Your task to perform on an android device: Turn on the flashlight Image 0: 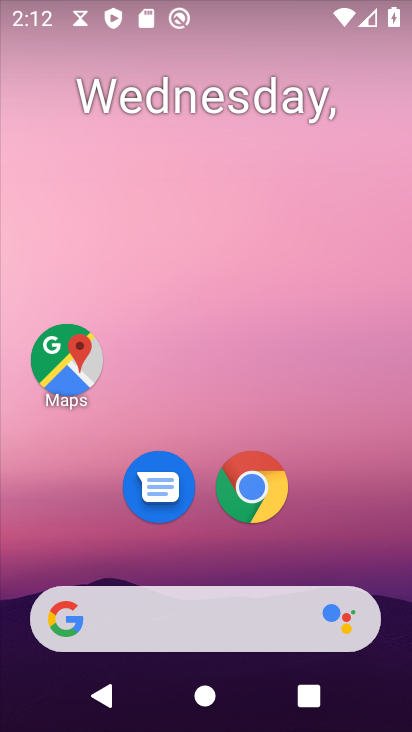
Step 0: drag from (319, 554) to (269, 297)
Your task to perform on an android device: Turn on the flashlight Image 1: 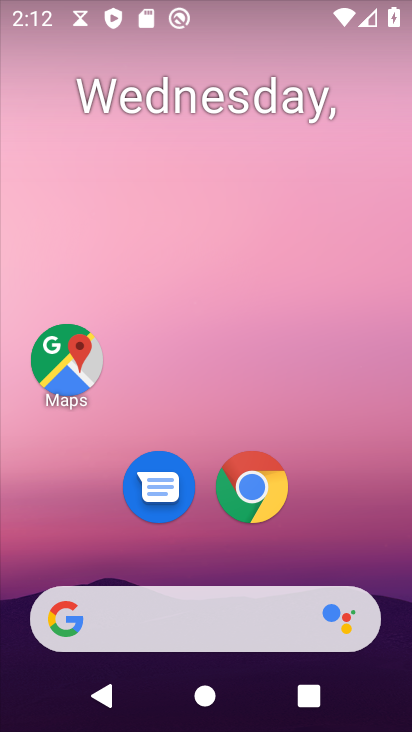
Step 1: drag from (213, 613) to (223, 146)
Your task to perform on an android device: Turn on the flashlight Image 2: 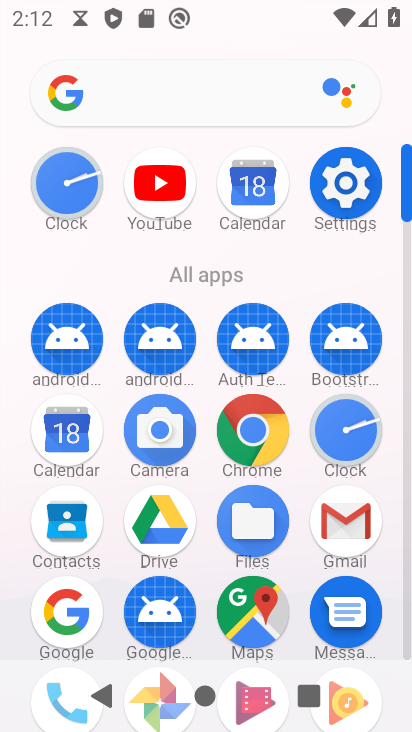
Step 2: drag from (213, 455) to (181, 179)
Your task to perform on an android device: Turn on the flashlight Image 3: 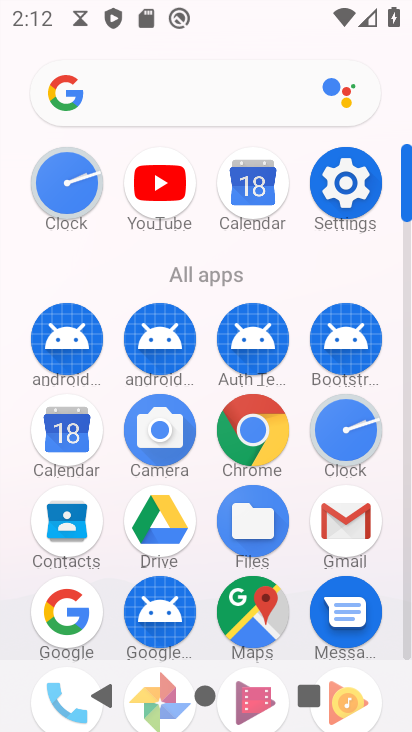
Step 3: drag from (205, 233) to (292, 262)
Your task to perform on an android device: Turn on the flashlight Image 4: 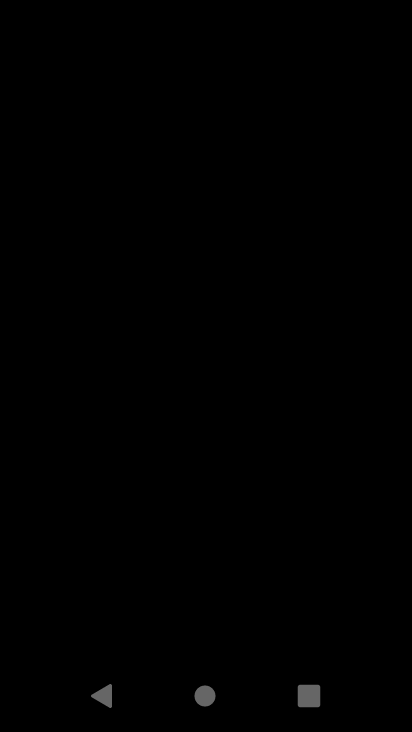
Step 4: click (164, 331)
Your task to perform on an android device: Turn on the flashlight Image 5: 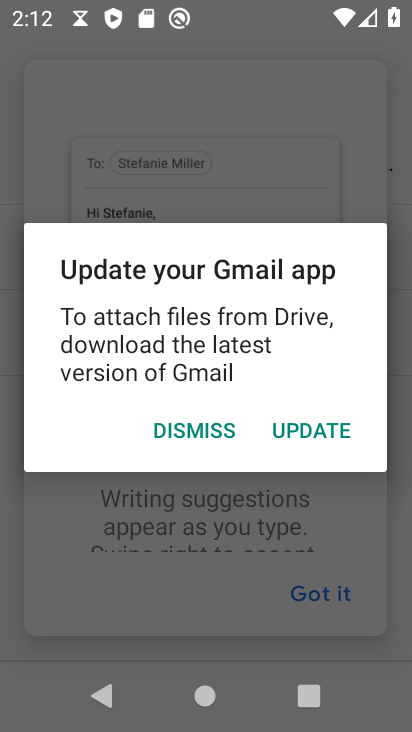
Step 5: click (209, 478)
Your task to perform on an android device: Turn on the flashlight Image 6: 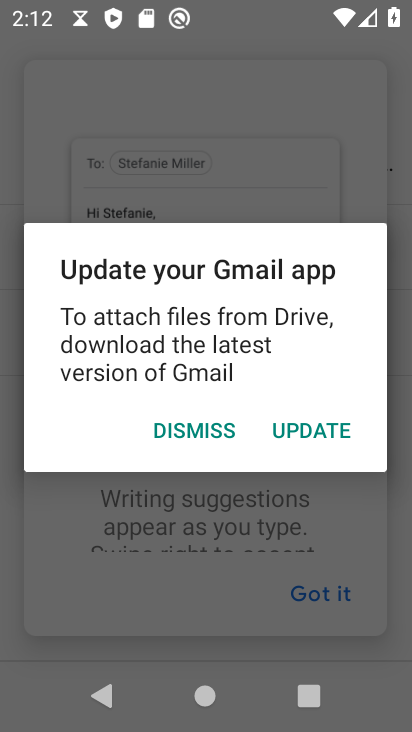
Step 6: click (191, 433)
Your task to perform on an android device: Turn on the flashlight Image 7: 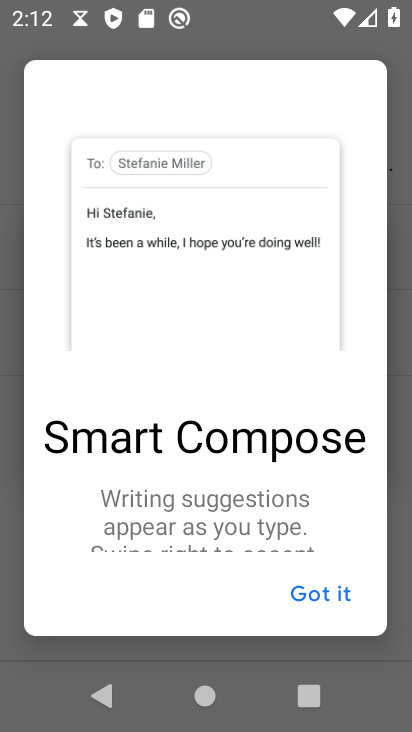
Step 7: click (192, 427)
Your task to perform on an android device: Turn on the flashlight Image 8: 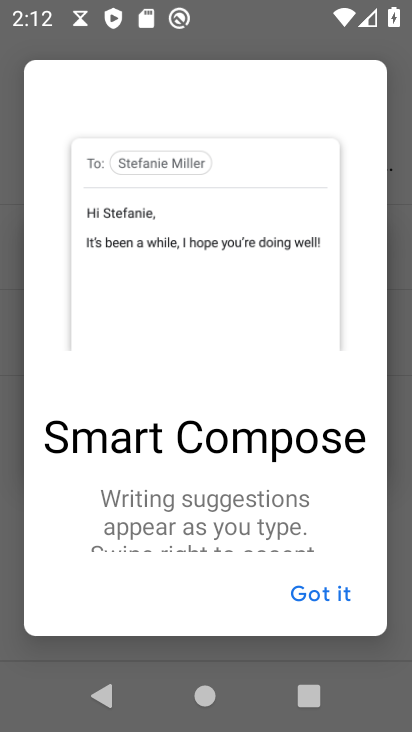
Step 8: task complete